Your task to perform on an android device: choose inbox layout in the gmail app Image 0: 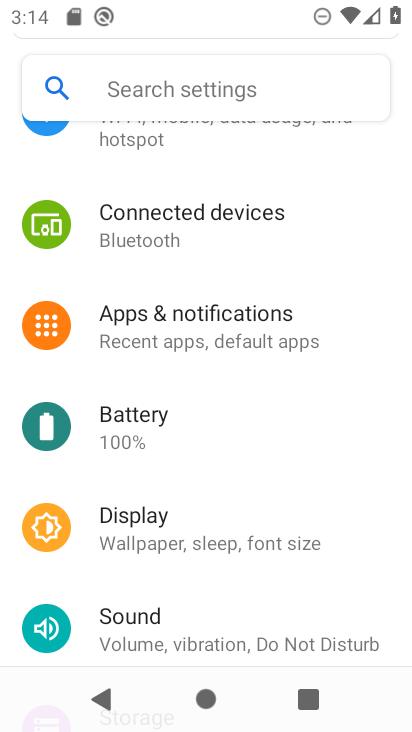
Step 0: press home button
Your task to perform on an android device: choose inbox layout in the gmail app Image 1: 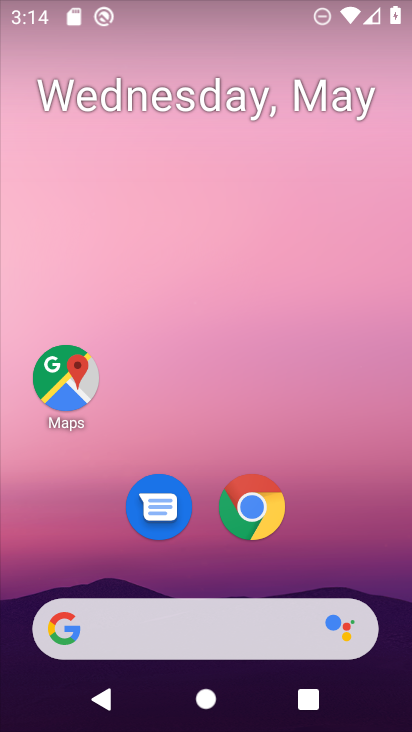
Step 1: drag from (230, 569) to (201, 27)
Your task to perform on an android device: choose inbox layout in the gmail app Image 2: 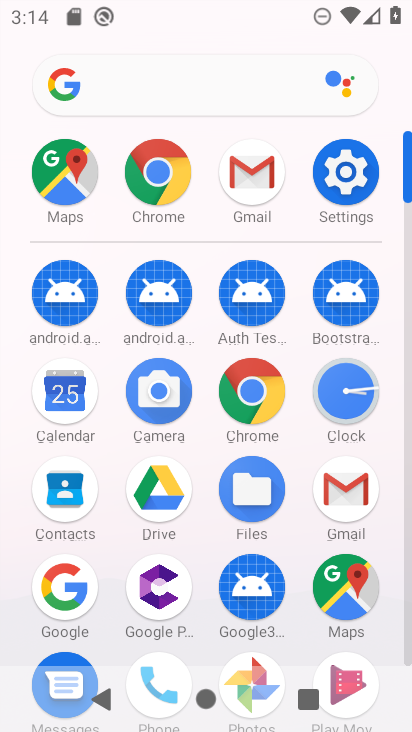
Step 2: click (348, 500)
Your task to perform on an android device: choose inbox layout in the gmail app Image 3: 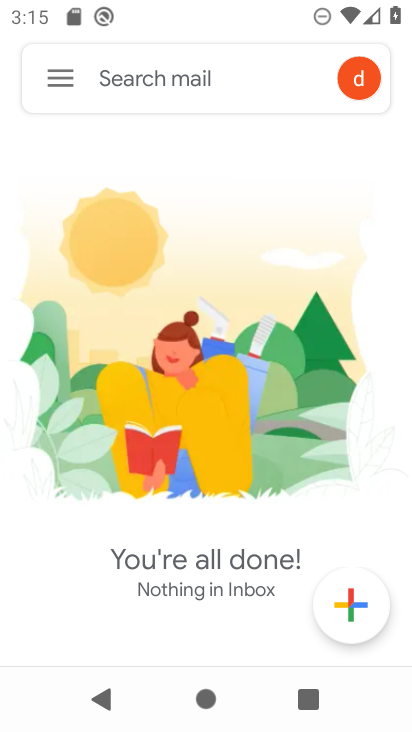
Step 3: click (65, 81)
Your task to perform on an android device: choose inbox layout in the gmail app Image 4: 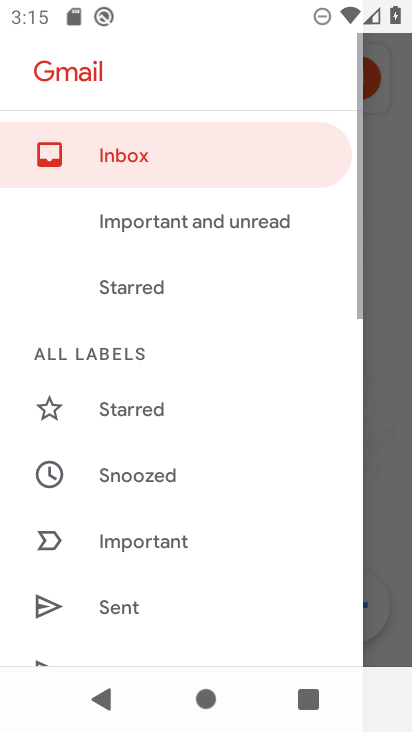
Step 4: drag from (128, 563) to (162, 227)
Your task to perform on an android device: choose inbox layout in the gmail app Image 5: 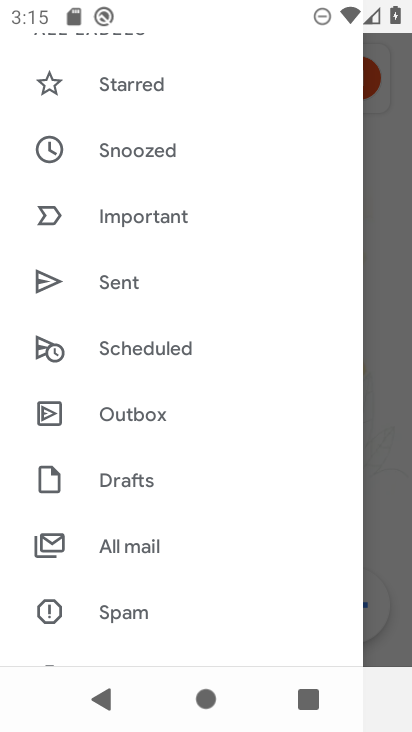
Step 5: drag from (124, 610) to (150, 177)
Your task to perform on an android device: choose inbox layout in the gmail app Image 6: 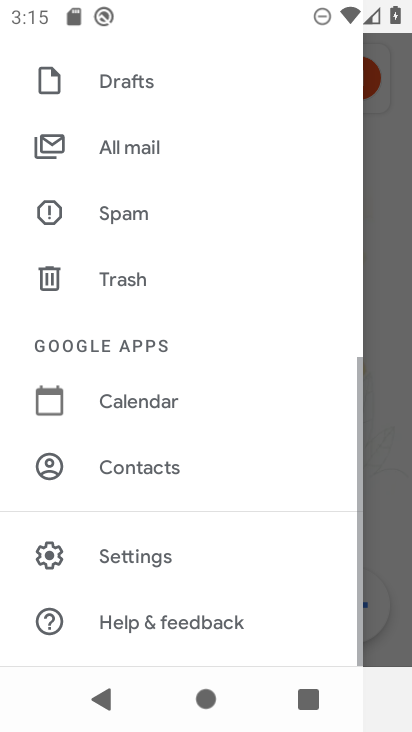
Step 6: drag from (155, 604) to (177, 475)
Your task to perform on an android device: choose inbox layout in the gmail app Image 7: 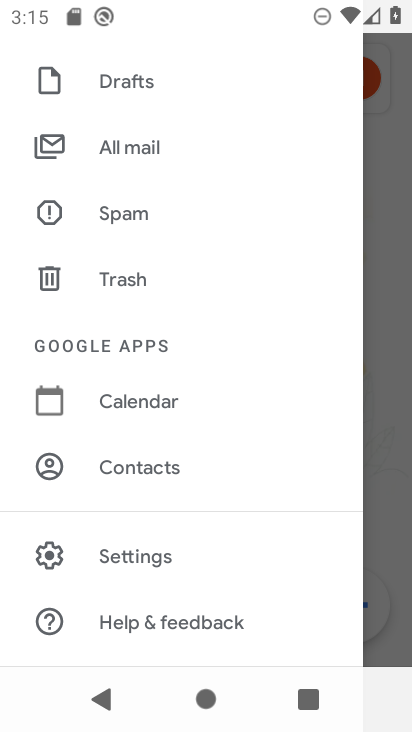
Step 7: click (107, 562)
Your task to perform on an android device: choose inbox layout in the gmail app Image 8: 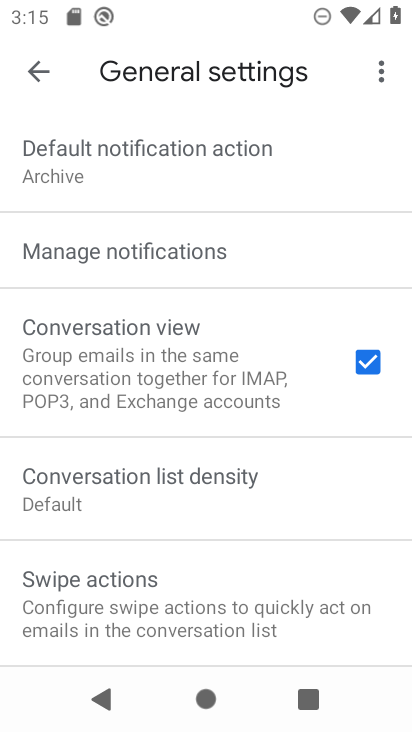
Step 8: click (28, 63)
Your task to perform on an android device: choose inbox layout in the gmail app Image 9: 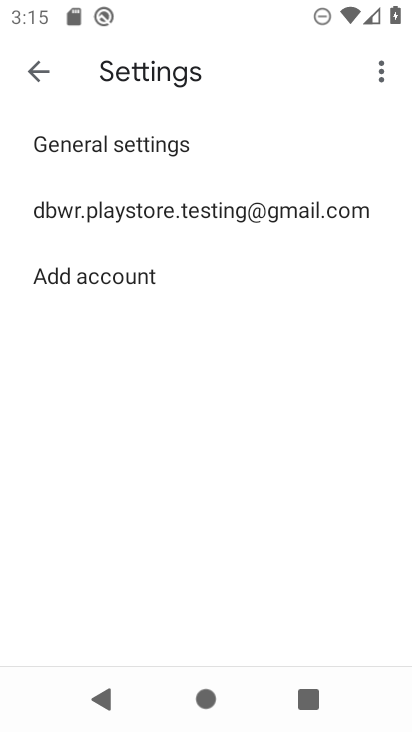
Step 9: click (160, 227)
Your task to perform on an android device: choose inbox layout in the gmail app Image 10: 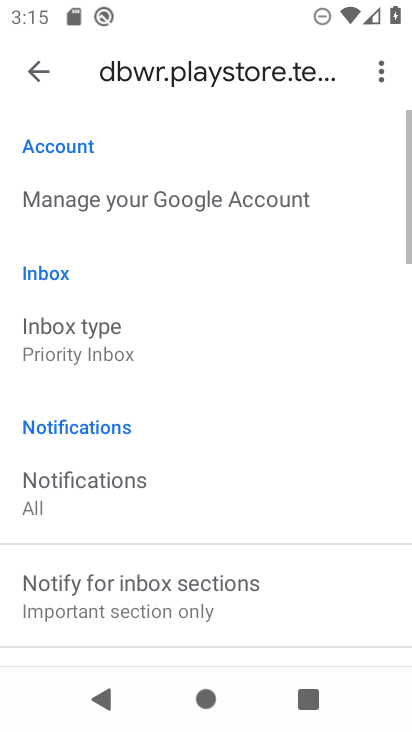
Step 10: click (99, 355)
Your task to perform on an android device: choose inbox layout in the gmail app Image 11: 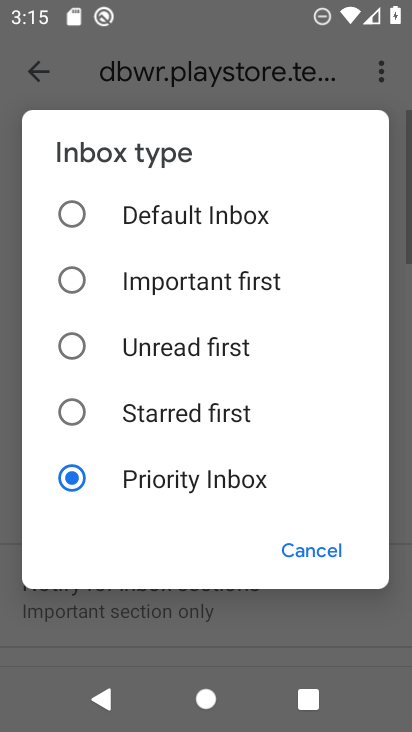
Step 11: click (113, 210)
Your task to perform on an android device: choose inbox layout in the gmail app Image 12: 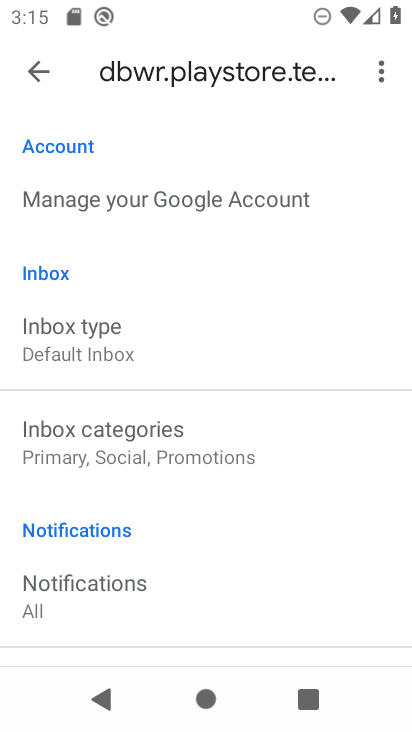
Step 12: task complete